Your task to perform on an android device: turn on notifications settings in the gmail app Image 0: 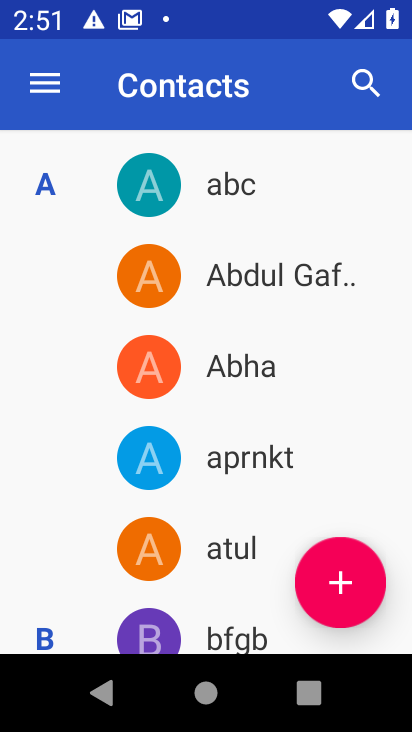
Step 0: drag from (164, 438) to (204, 123)
Your task to perform on an android device: turn on notifications settings in the gmail app Image 1: 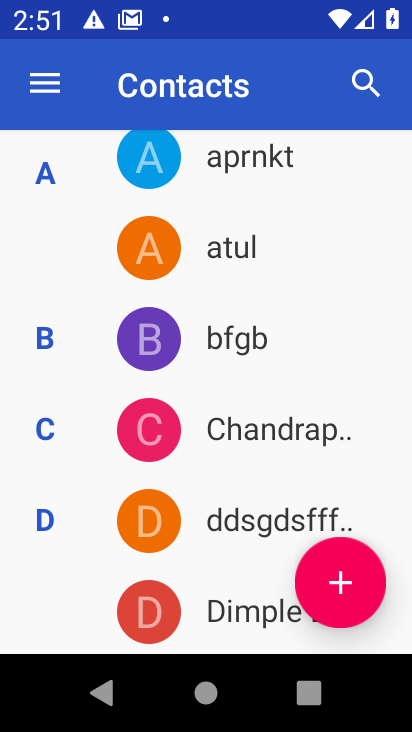
Step 1: task complete